Your task to perform on an android device: turn pop-ups off in chrome Image 0: 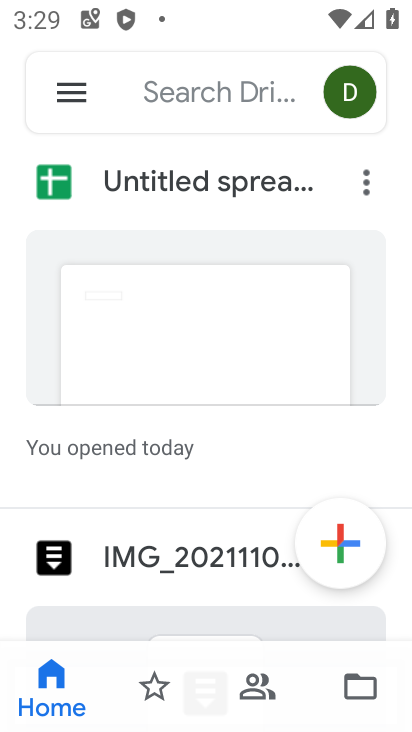
Step 0: press home button
Your task to perform on an android device: turn pop-ups off in chrome Image 1: 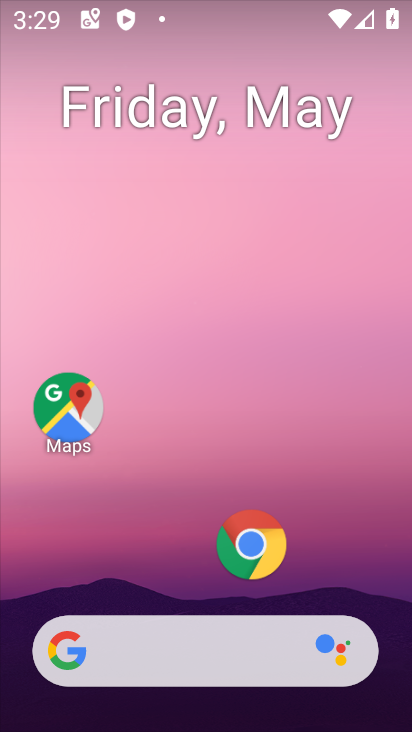
Step 1: click (246, 547)
Your task to perform on an android device: turn pop-ups off in chrome Image 2: 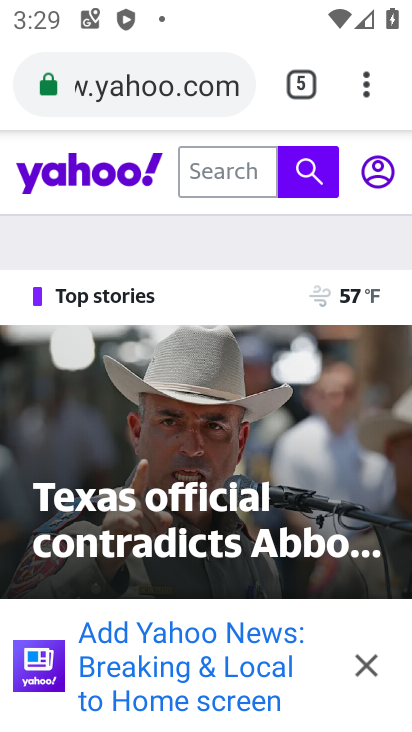
Step 2: drag from (374, 76) to (179, 596)
Your task to perform on an android device: turn pop-ups off in chrome Image 3: 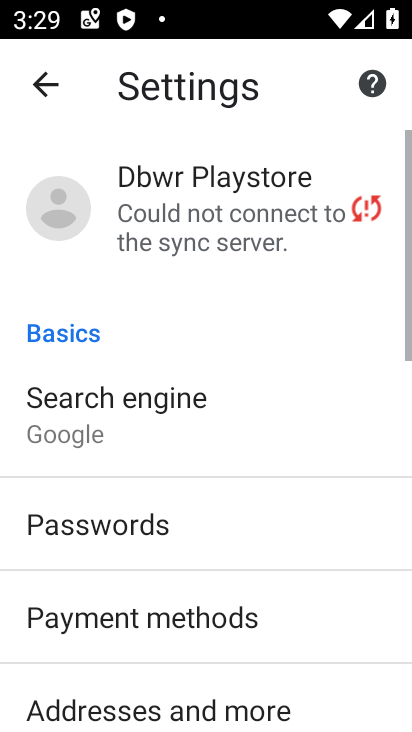
Step 3: drag from (222, 631) to (285, 277)
Your task to perform on an android device: turn pop-ups off in chrome Image 4: 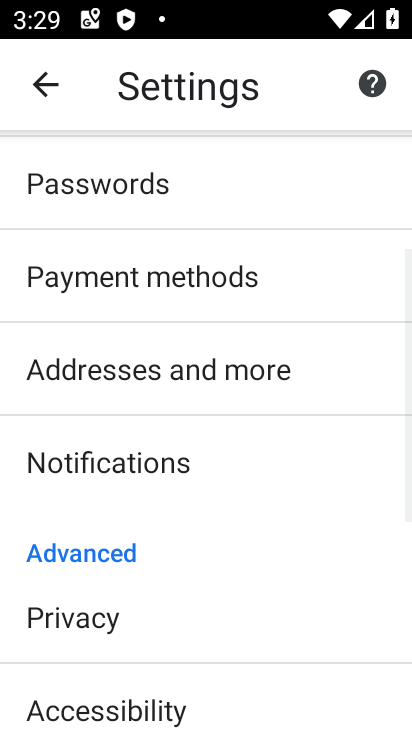
Step 4: drag from (267, 575) to (336, 294)
Your task to perform on an android device: turn pop-ups off in chrome Image 5: 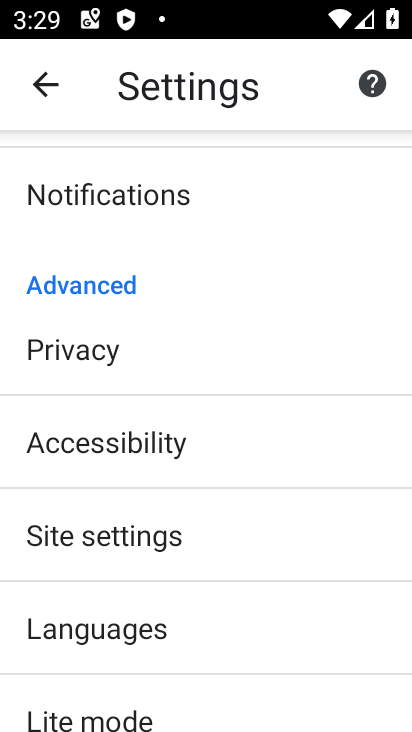
Step 5: click (224, 548)
Your task to perform on an android device: turn pop-ups off in chrome Image 6: 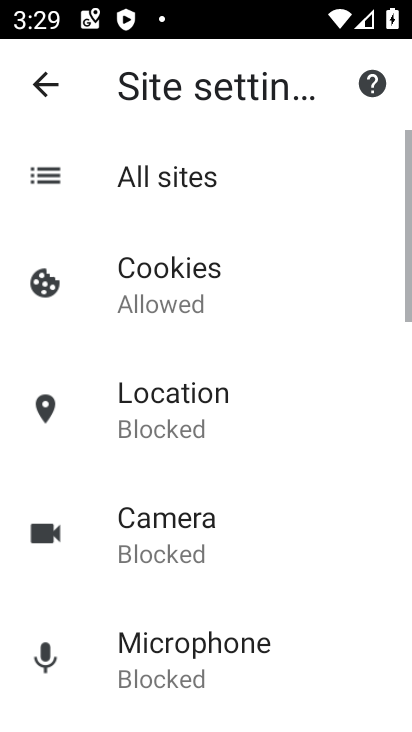
Step 6: drag from (245, 629) to (328, 270)
Your task to perform on an android device: turn pop-ups off in chrome Image 7: 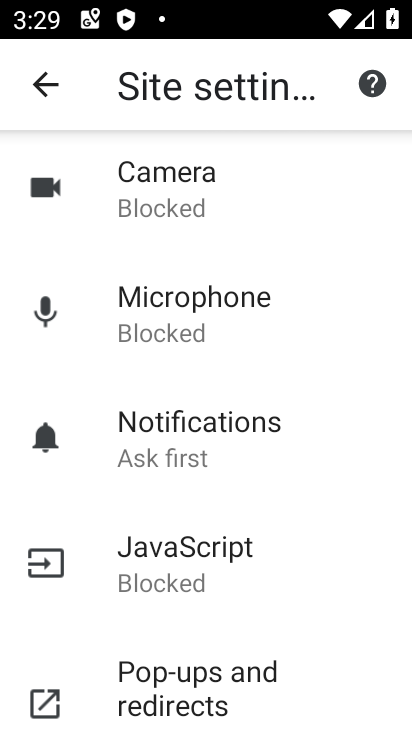
Step 7: click (272, 664)
Your task to perform on an android device: turn pop-ups off in chrome Image 8: 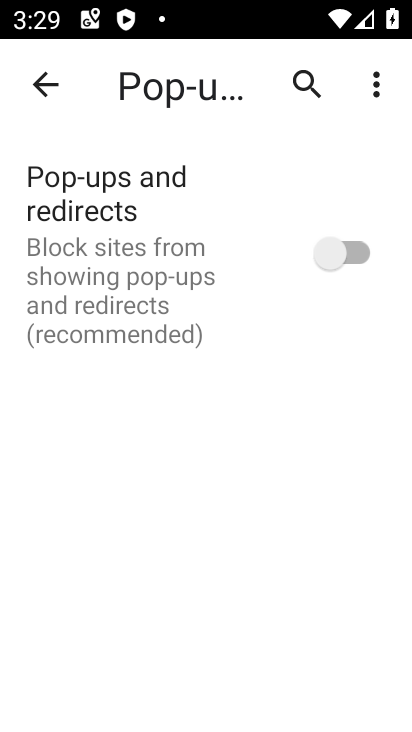
Step 8: task complete